Your task to perform on an android device: toggle priority inbox in the gmail app Image 0: 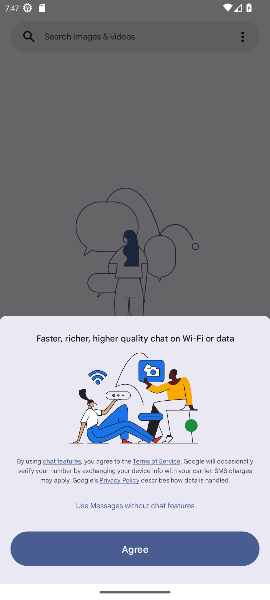
Step 0: press home button
Your task to perform on an android device: toggle priority inbox in the gmail app Image 1: 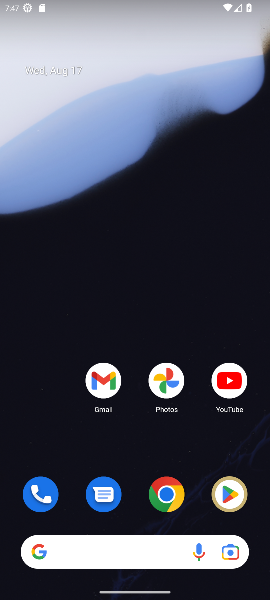
Step 1: drag from (149, 496) to (109, 62)
Your task to perform on an android device: toggle priority inbox in the gmail app Image 2: 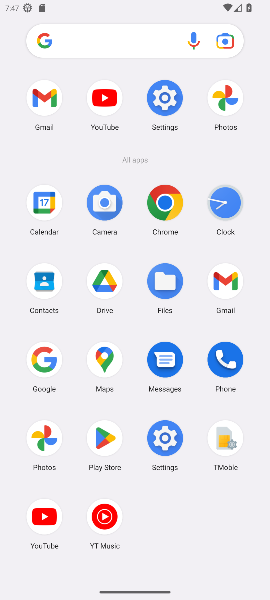
Step 2: click (43, 102)
Your task to perform on an android device: toggle priority inbox in the gmail app Image 3: 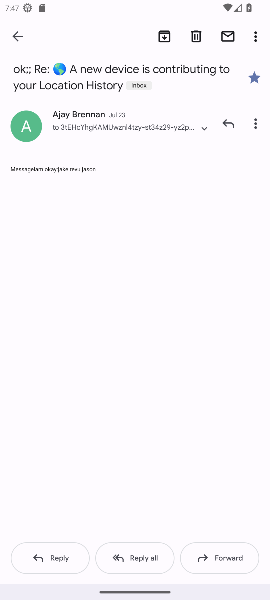
Step 3: click (13, 28)
Your task to perform on an android device: toggle priority inbox in the gmail app Image 4: 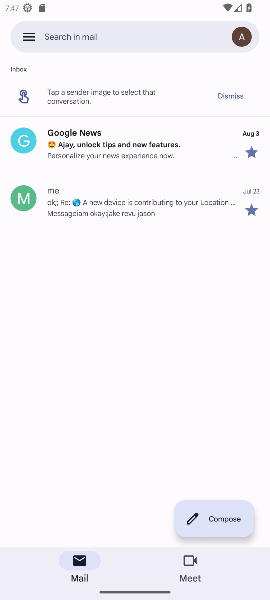
Step 4: click (30, 42)
Your task to perform on an android device: toggle priority inbox in the gmail app Image 5: 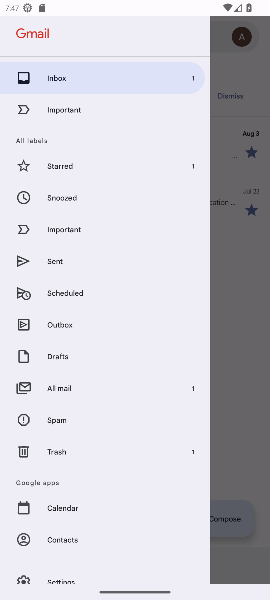
Step 5: drag from (100, 541) to (159, 119)
Your task to perform on an android device: toggle priority inbox in the gmail app Image 6: 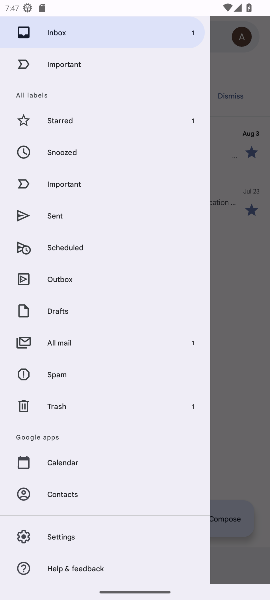
Step 6: click (67, 536)
Your task to perform on an android device: toggle priority inbox in the gmail app Image 7: 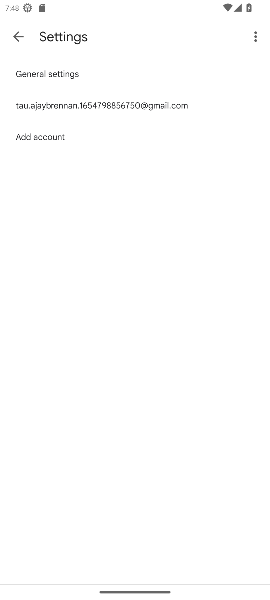
Step 7: click (50, 103)
Your task to perform on an android device: toggle priority inbox in the gmail app Image 8: 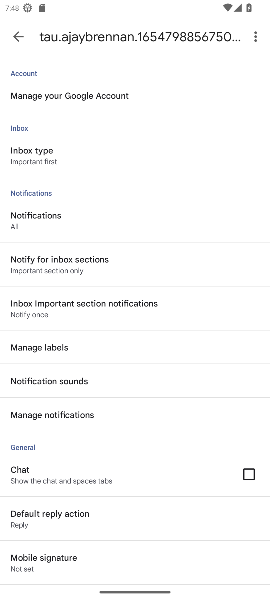
Step 8: click (59, 165)
Your task to perform on an android device: toggle priority inbox in the gmail app Image 9: 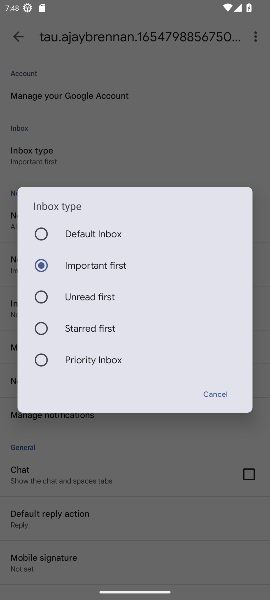
Step 9: click (103, 360)
Your task to perform on an android device: toggle priority inbox in the gmail app Image 10: 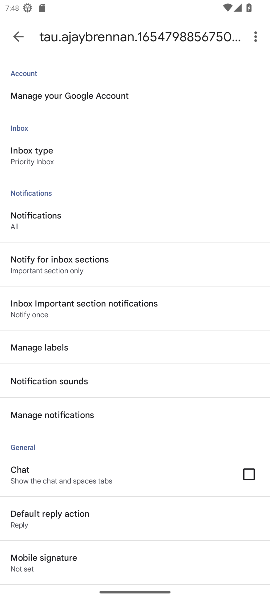
Step 10: task complete